Your task to perform on an android device: Go to accessibility settings Image 0: 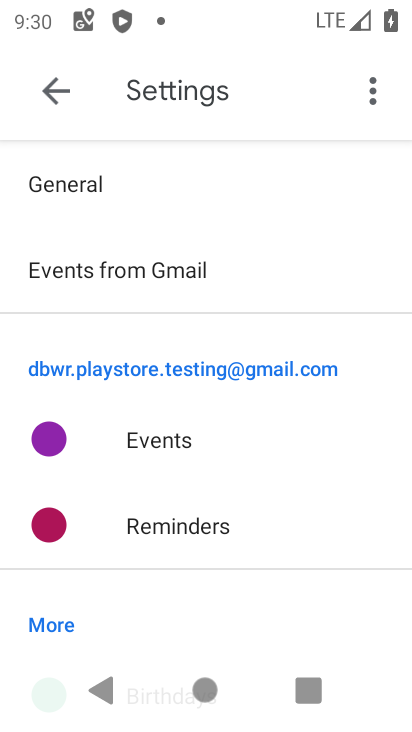
Step 0: press home button
Your task to perform on an android device: Go to accessibility settings Image 1: 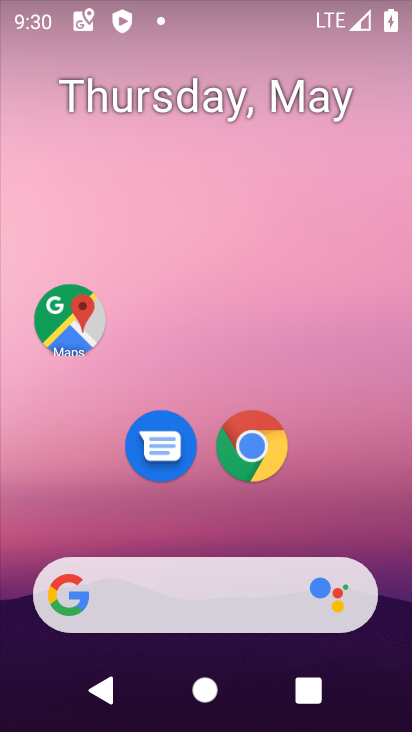
Step 1: drag from (408, 623) to (268, 1)
Your task to perform on an android device: Go to accessibility settings Image 2: 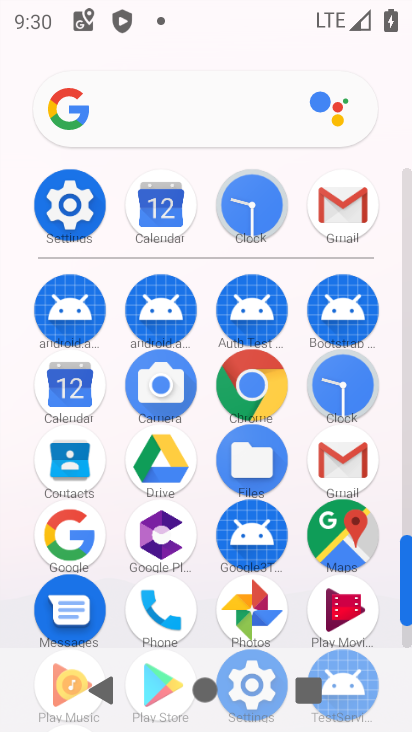
Step 2: click (404, 636)
Your task to perform on an android device: Go to accessibility settings Image 3: 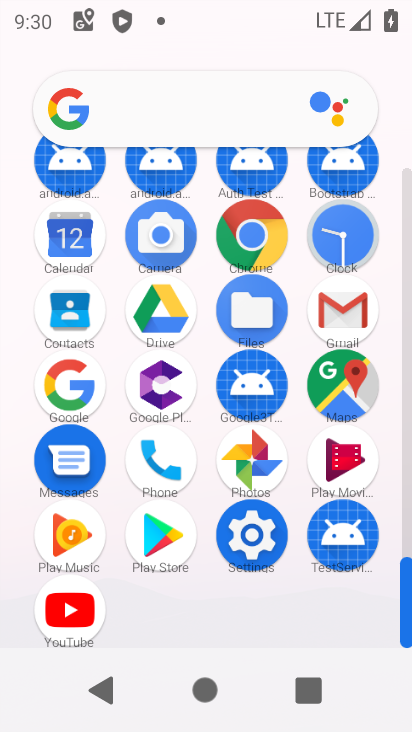
Step 3: click (249, 535)
Your task to perform on an android device: Go to accessibility settings Image 4: 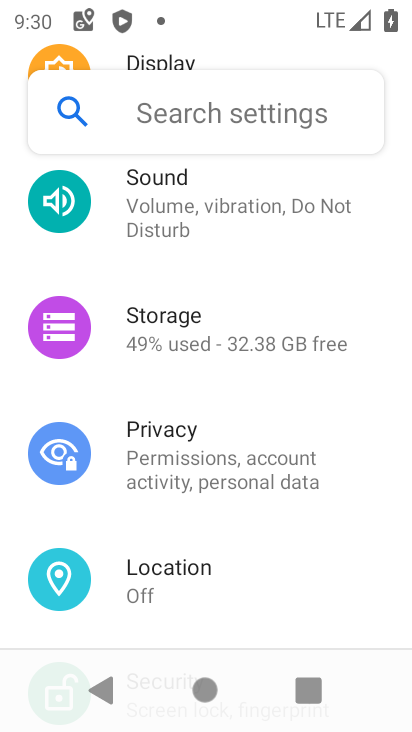
Step 4: drag from (254, 571) to (254, 183)
Your task to perform on an android device: Go to accessibility settings Image 5: 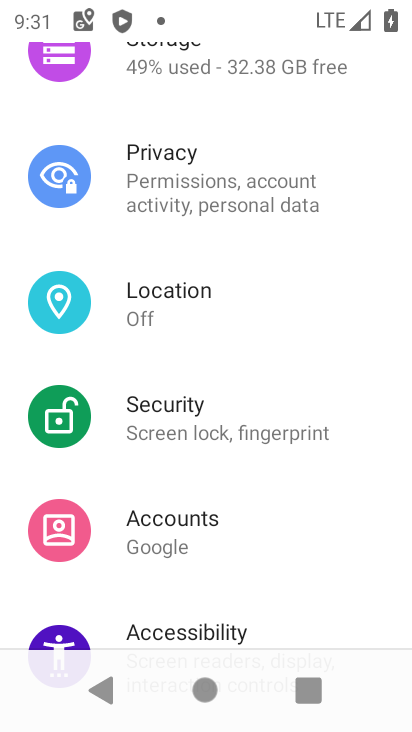
Step 5: drag from (280, 590) to (271, 226)
Your task to perform on an android device: Go to accessibility settings Image 6: 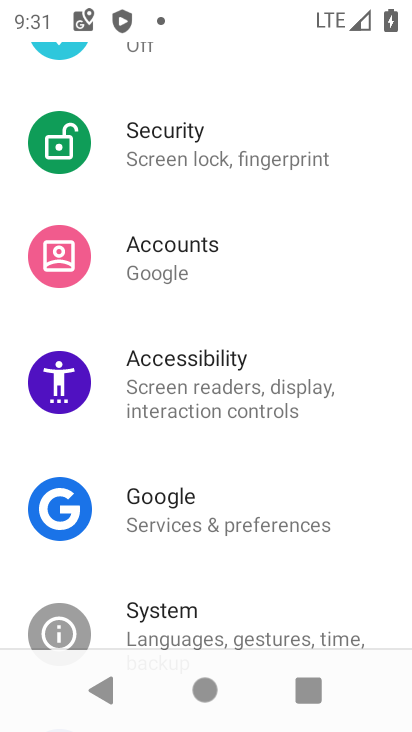
Step 6: click (140, 379)
Your task to perform on an android device: Go to accessibility settings Image 7: 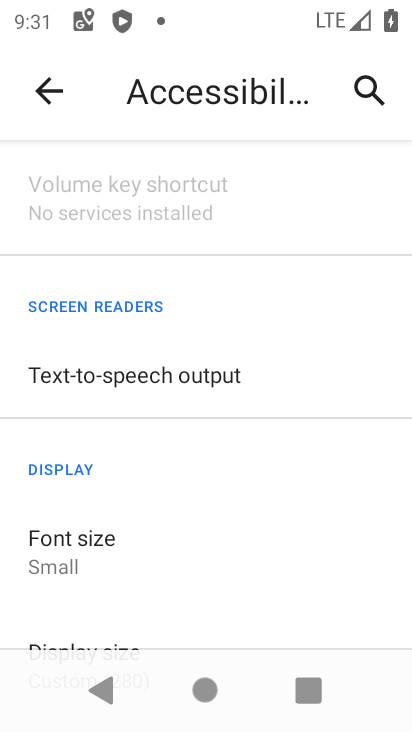
Step 7: task complete